Your task to perform on an android device: Open internet settings Image 0: 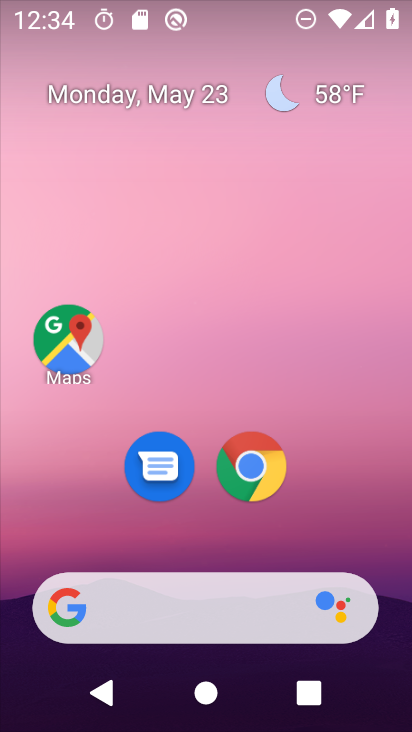
Step 0: drag from (208, 517) to (217, 106)
Your task to perform on an android device: Open internet settings Image 1: 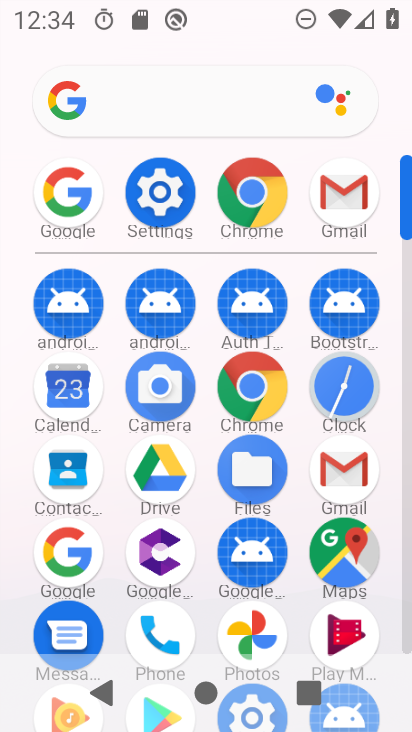
Step 1: click (163, 206)
Your task to perform on an android device: Open internet settings Image 2: 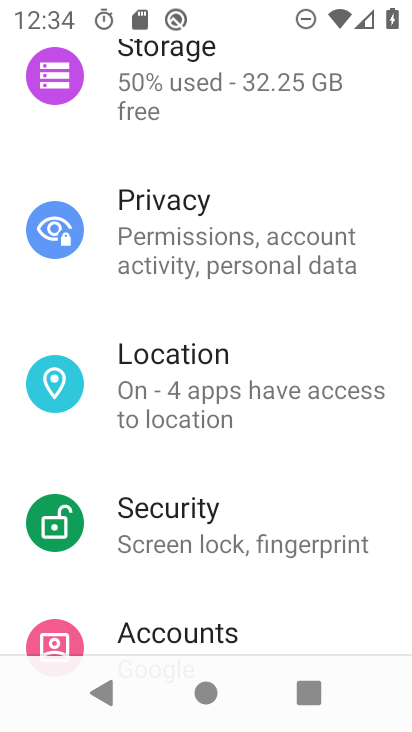
Step 2: drag from (184, 132) to (266, 614)
Your task to perform on an android device: Open internet settings Image 3: 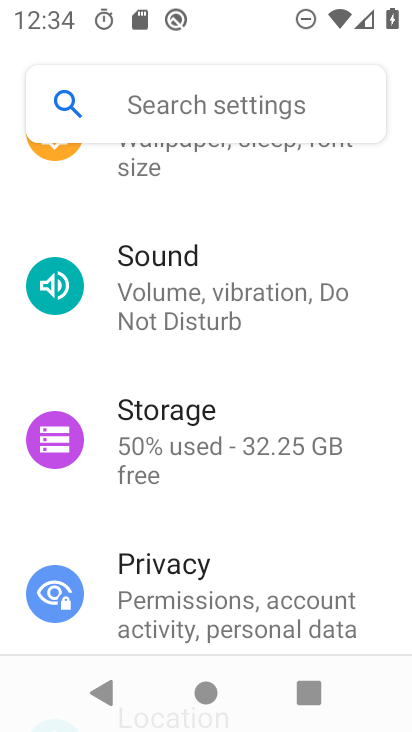
Step 3: drag from (194, 220) to (269, 631)
Your task to perform on an android device: Open internet settings Image 4: 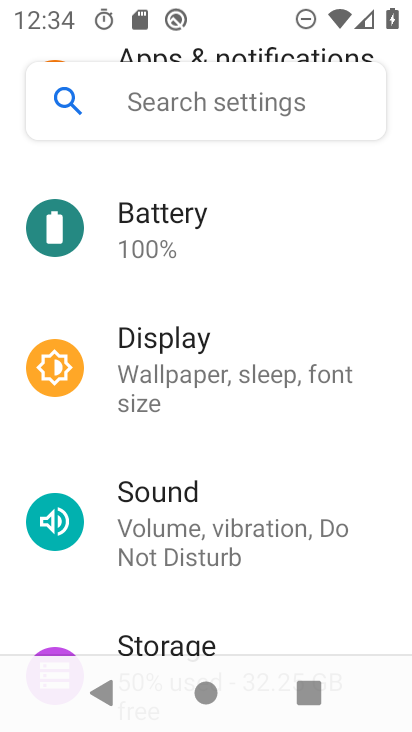
Step 4: drag from (147, 182) to (224, 668)
Your task to perform on an android device: Open internet settings Image 5: 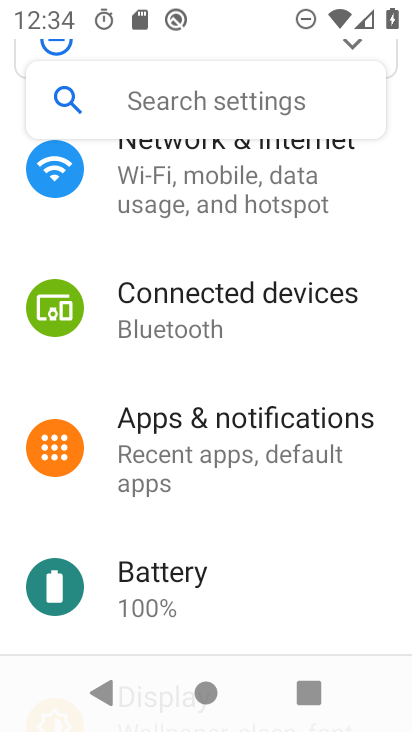
Step 5: click (147, 183)
Your task to perform on an android device: Open internet settings Image 6: 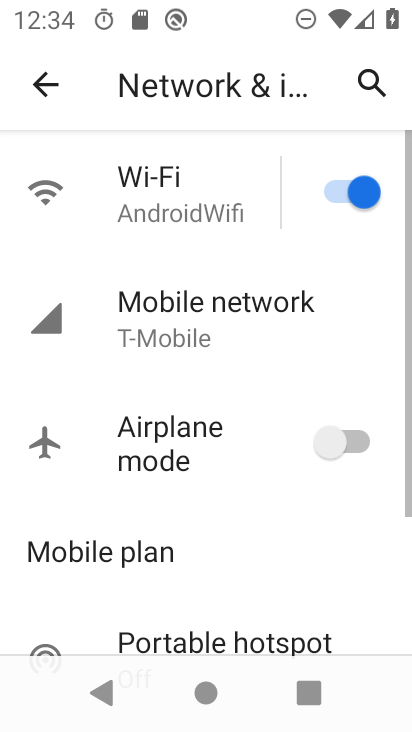
Step 6: click (196, 179)
Your task to perform on an android device: Open internet settings Image 7: 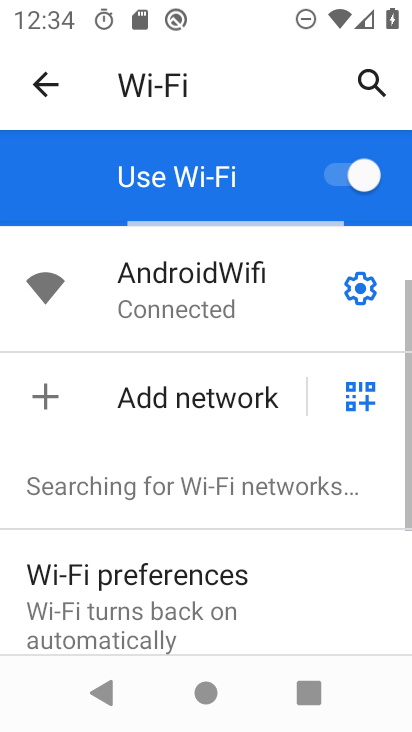
Step 7: click (366, 286)
Your task to perform on an android device: Open internet settings Image 8: 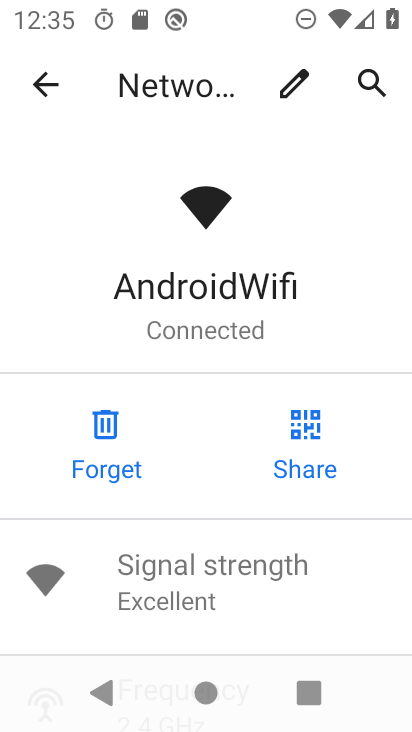
Step 8: task complete